Your task to perform on an android device: Open Amazon Image 0: 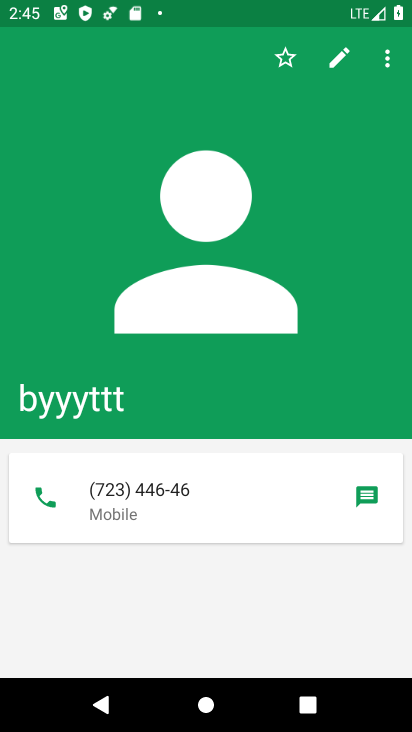
Step 0: press home button
Your task to perform on an android device: Open Amazon Image 1: 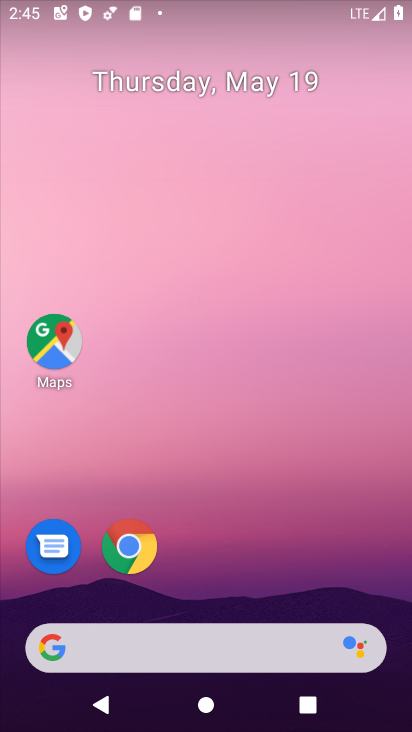
Step 1: click (126, 563)
Your task to perform on an android device: Open Amazon Image 2: 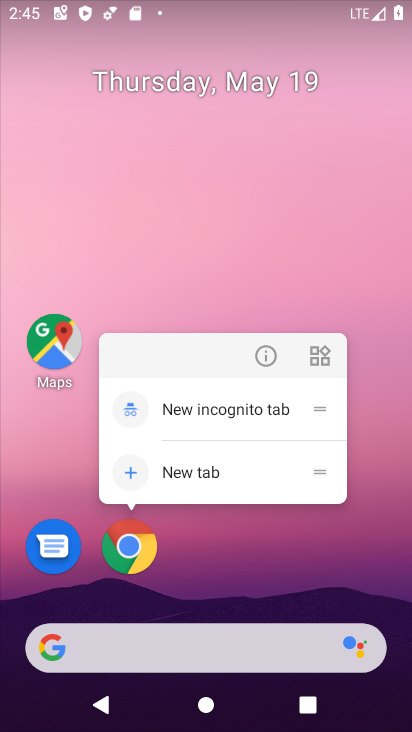
Step 2: click (126, 555)
Your task to perform on an android device: Open Amazon Image 3: 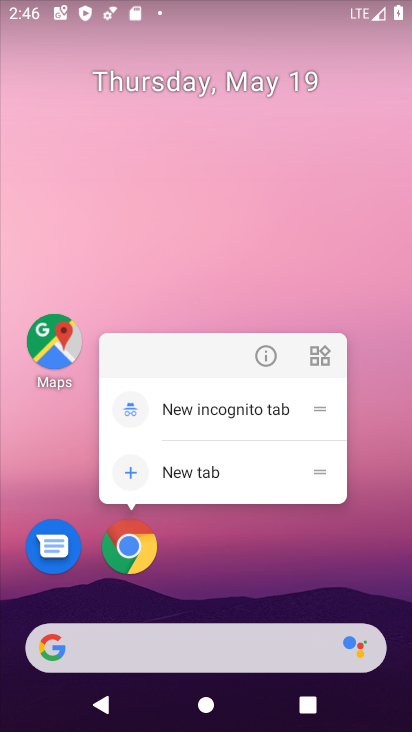
Step 3: click (130, 549)
Your task to perform on an android device: Open Amazon Image 4: 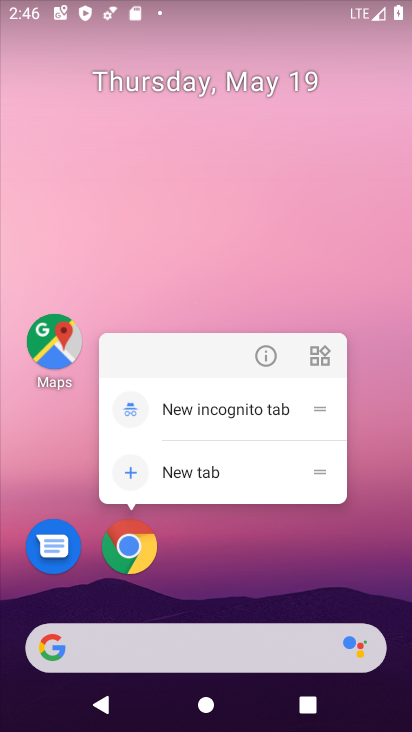
Step 4: click (136, 552)
Your task to perform on an android device: Open Amazon Image 5: 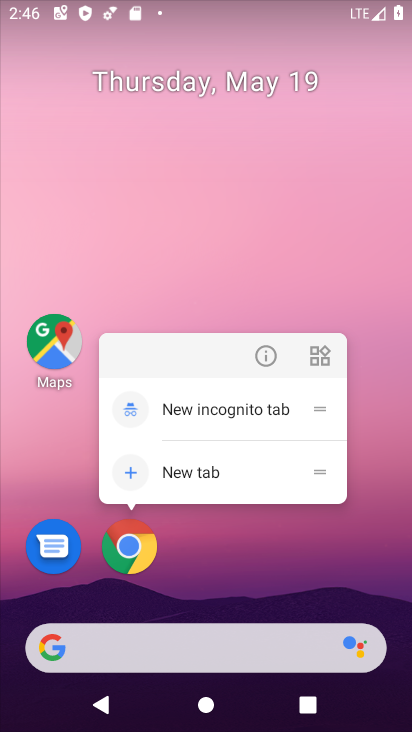
Step 5: click (133, 564)
Your task to perform on an android device: Open Amazon Image 6: 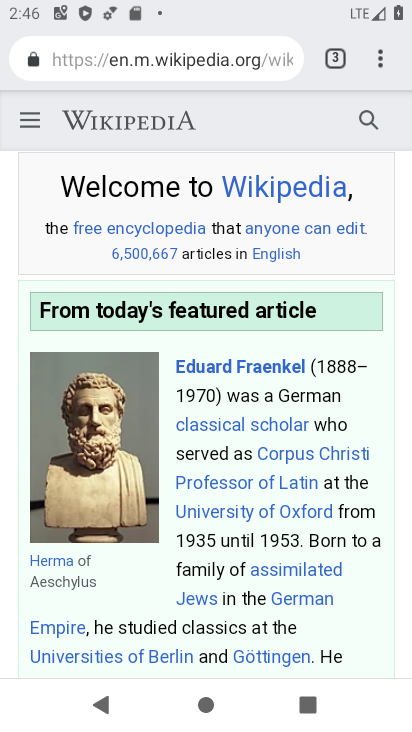
Step 6: drag from (381, 57) to (204, 121)
Your task to perform on an android device: Open Amazon Image 7: 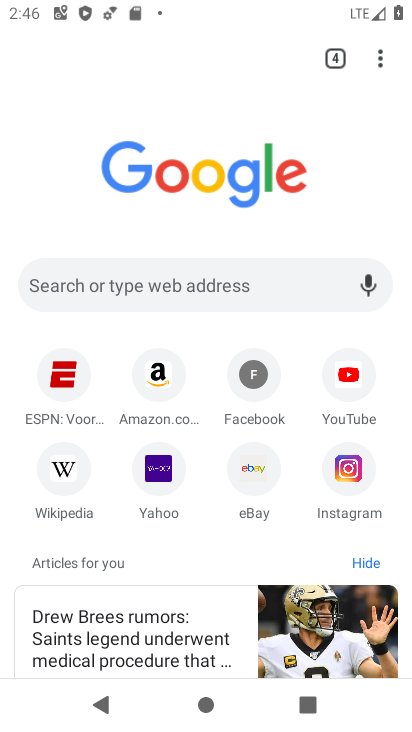
Step 7: click (170, 373)
Your task to perform on an android device: Open Amazon Image 8: 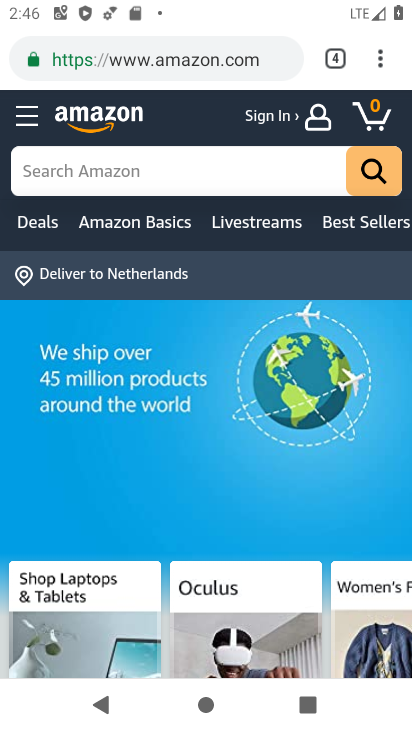
Step 8: task complete